Your task to perform on an android device: Is it going to rain tomorrow? Image 0: 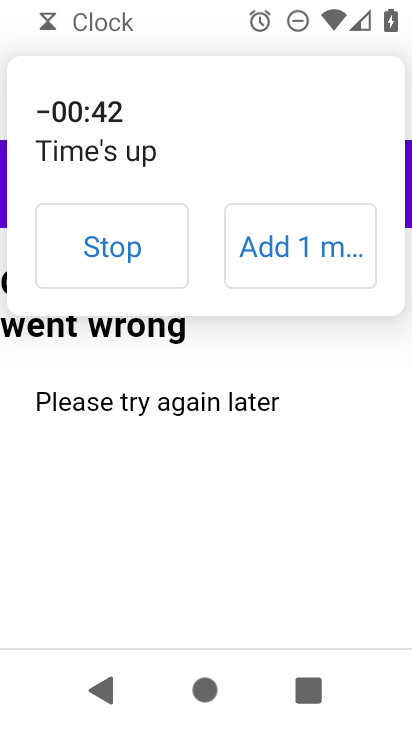
Step 0: press home button
Your task to perform on an android device: Is it going to rain tomorrow? Image 1: 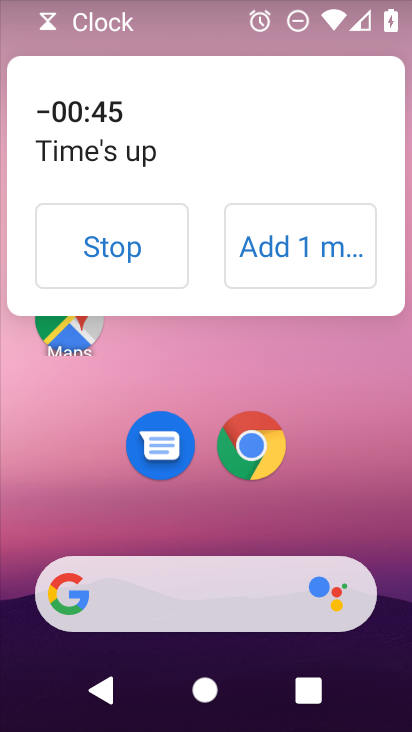
Step 1: click (203, 597)
Your task to perform on an android device: Is it going to rain tomorrow? Image 2: 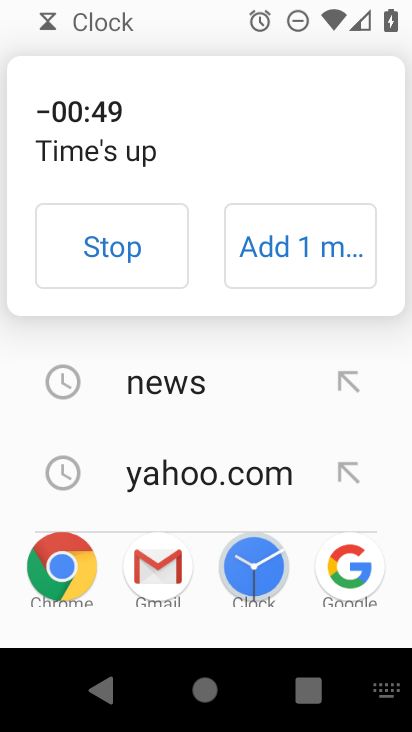
Step 2: click (97, 250)
Your task to perform on an android device: Is it going to rain tomorrow? Image 3: 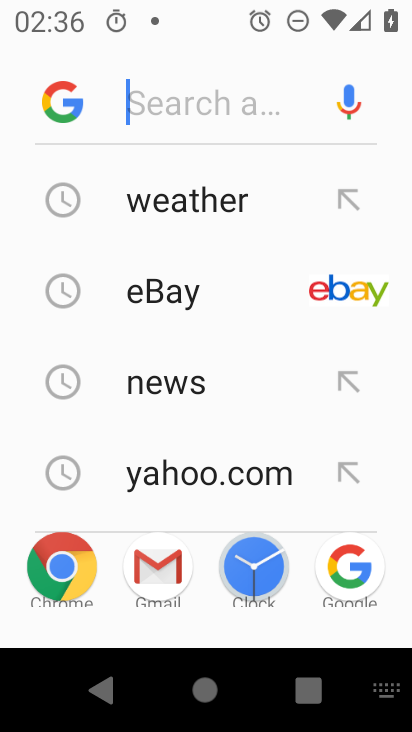
Step 3: click (211, 193)
Your task to perform on an android device: Is it going to rain tomorrow? Image 4: 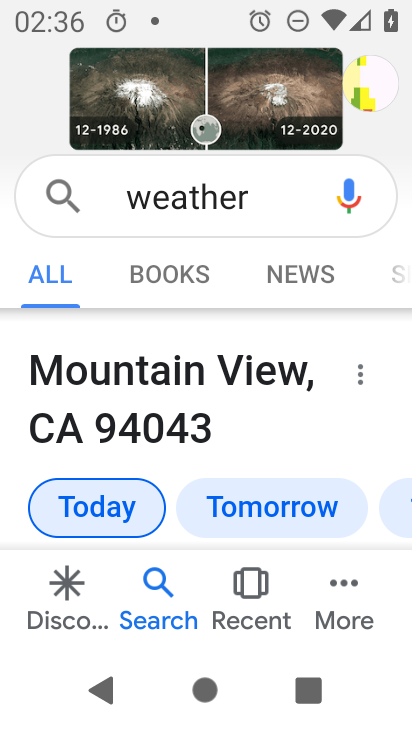
Step 4: click (235, 338)
Your task to perform on an android device: Is it going to rain tomorrow? Image 5: 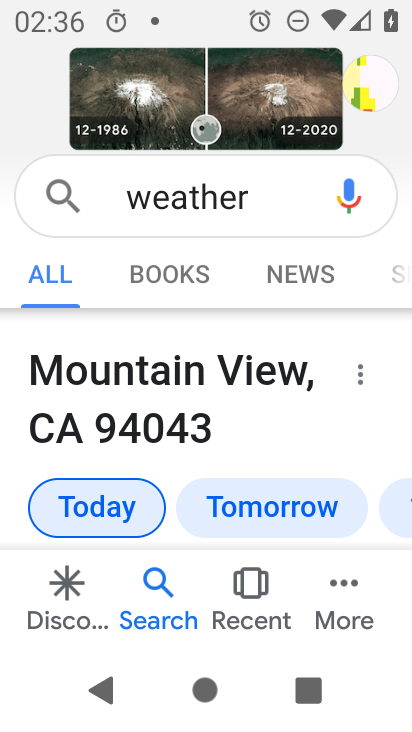
Step 5: click (298, 522)
Your task to perform on an android device: Is it going to rain tomorrow? Image 6: 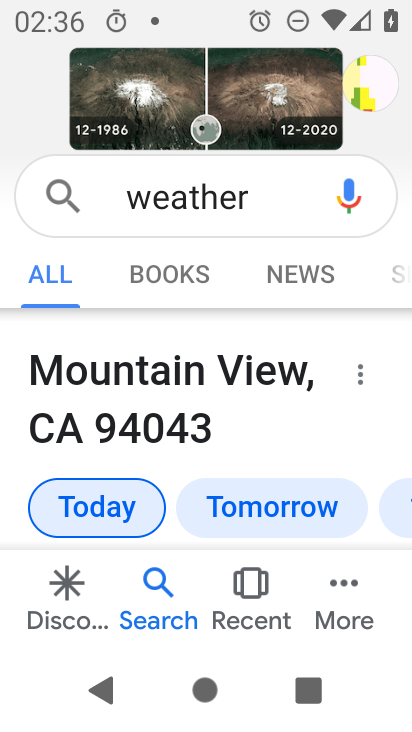
Step 6: drag from (279, 412) to (274, 203)
Your task to perform on an android device: Is it going to rain tomorrow? Image 7: 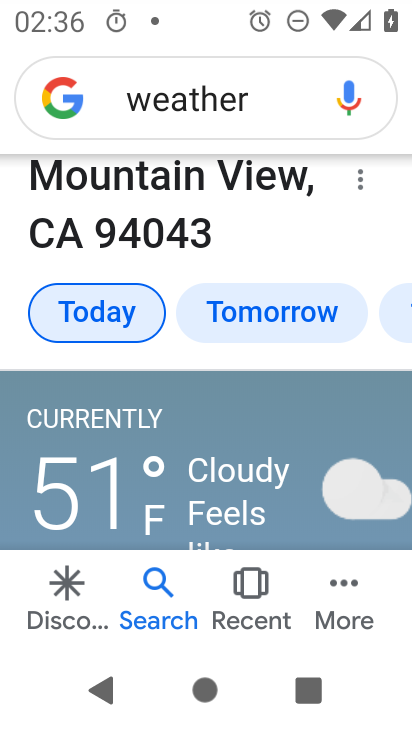
Step 7: click (275, 310)
Your task to perform on an android device: Is it going to rain tomorrow? Image 8: 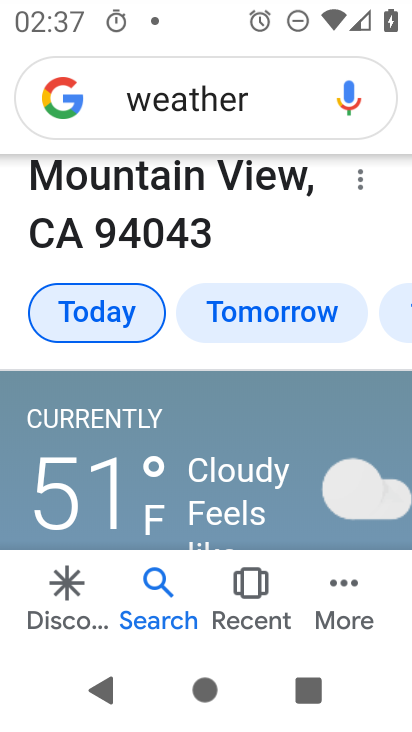
Step 8: click (246, 318)
Your task to perform on an android device: Is it going to rain tomorrow? Image 9: 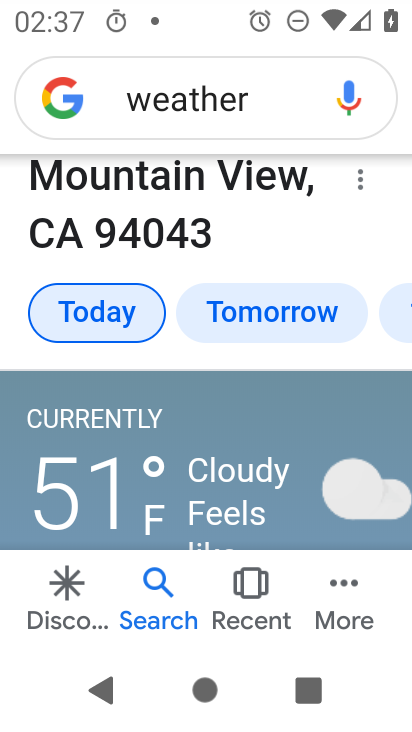
Step 9: click (269, 314)
Your task to perform on an android device: Is it going to rain tomorrow? Image 10: 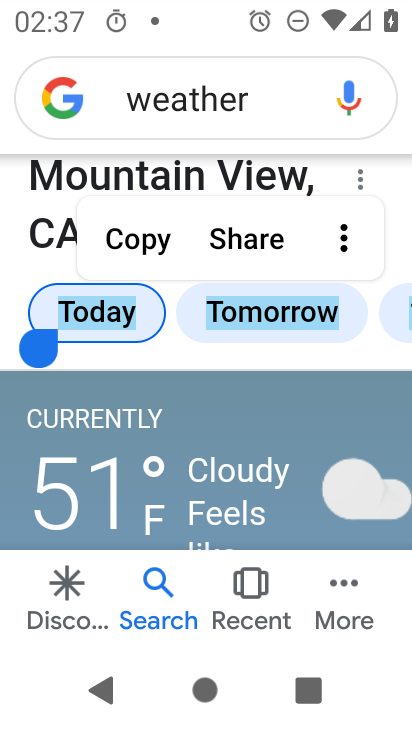
Step 10: task complete